Your task to perform on an android device: change timer sound Image 0: 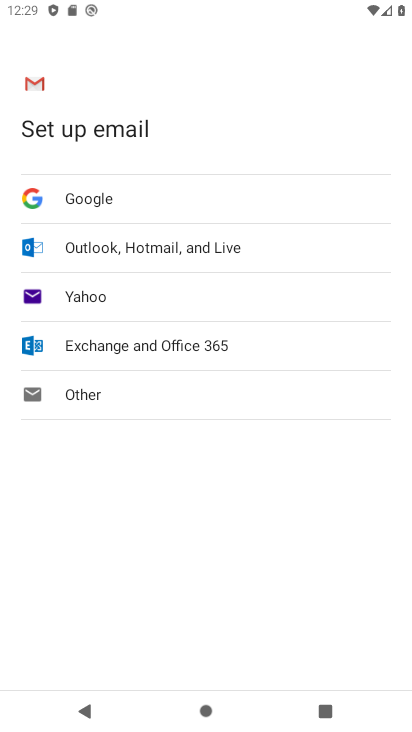
Step 0: press home button
Your task to perform on an android device: change timer sound Image 1: 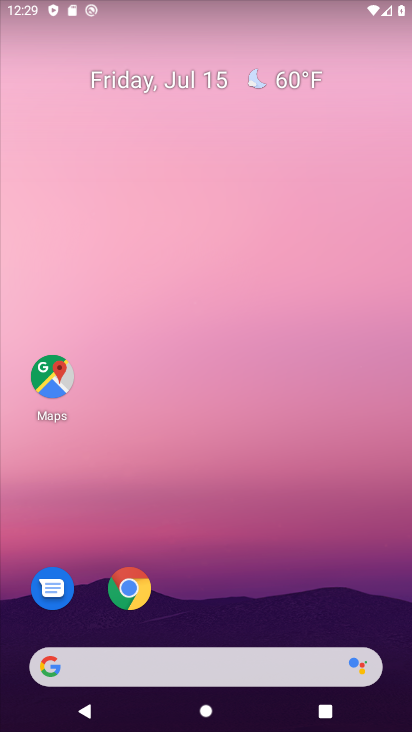
Step 1: drag from (213, 605) to (314, 43)
Your task to perform on an android device: change timer sound Image 2: 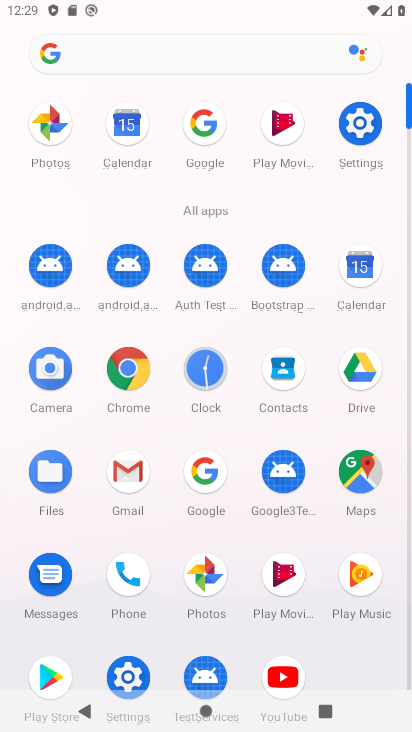
Step 2: click (208, 374)
Your task to perform on an android device: change timer sound Image 3: 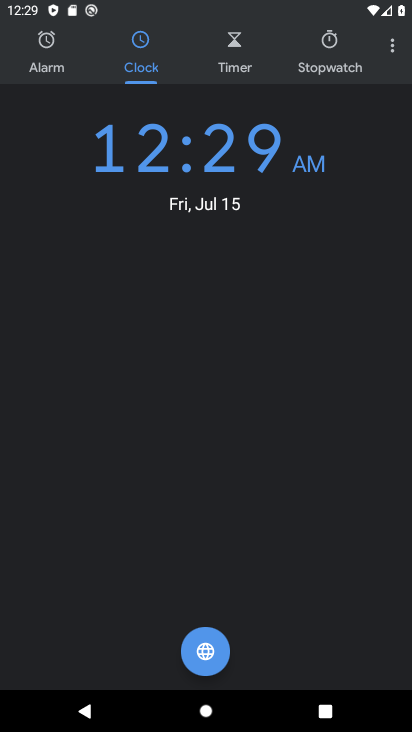
Step 3: click (399, 56)
Your task to perform on an android device: change timer sound Image 4: 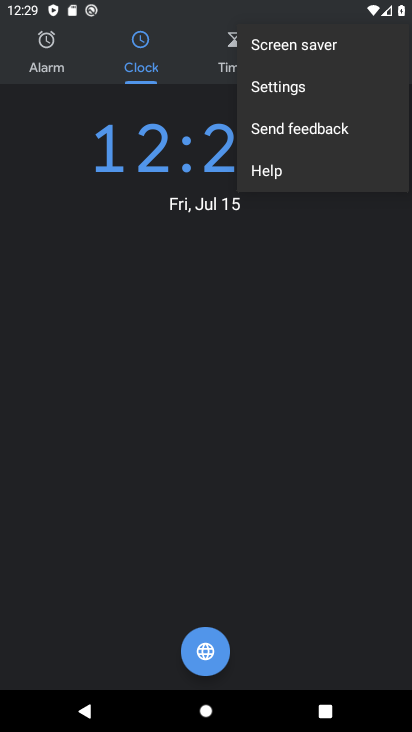
Step 4: click (296, 84)
Your task to perform on an android device: change timer sound Image 5: 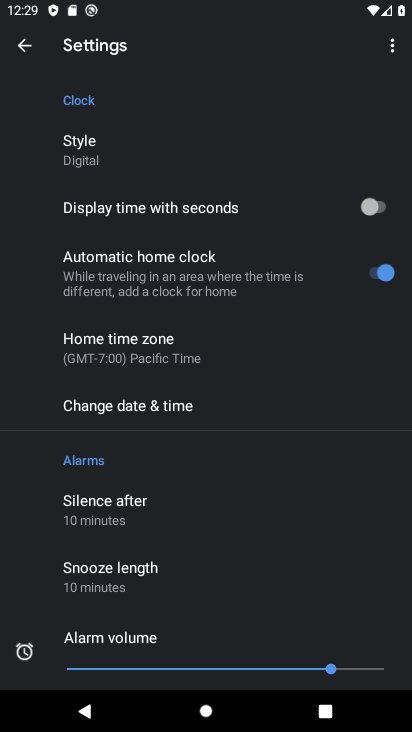
Step 5: drag from (160, 582) to (128, 298)
Your task to perform on an android device: change timer sound Image 6: 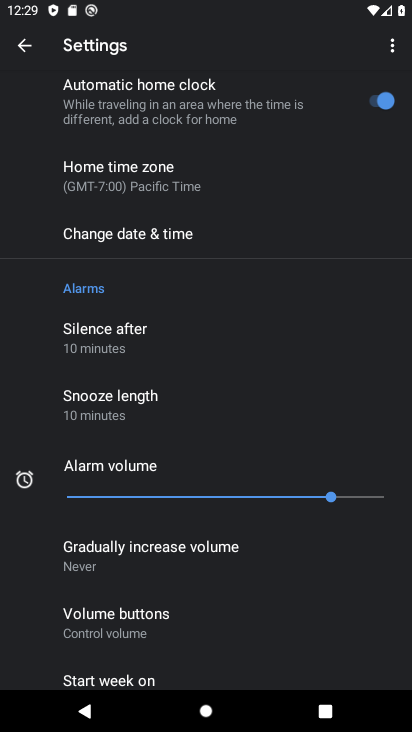
Step 6: drag from (116, 648) to (114, 137)
Your task to perform on an android device: change timer sound Image 7: 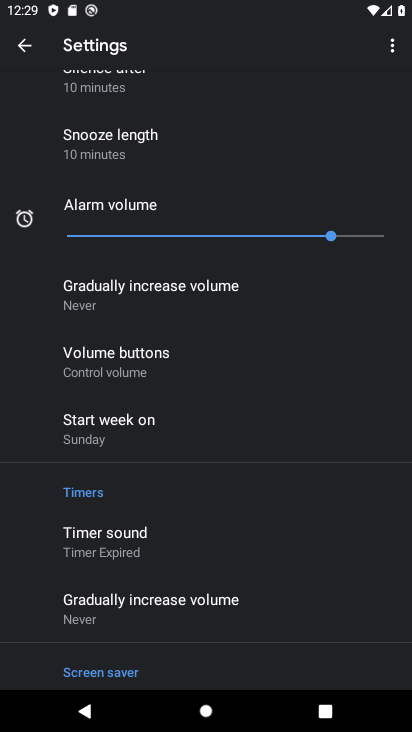
Step 7: click (132, 551)
Your task to perform on an android device: change timer sound Image 8: 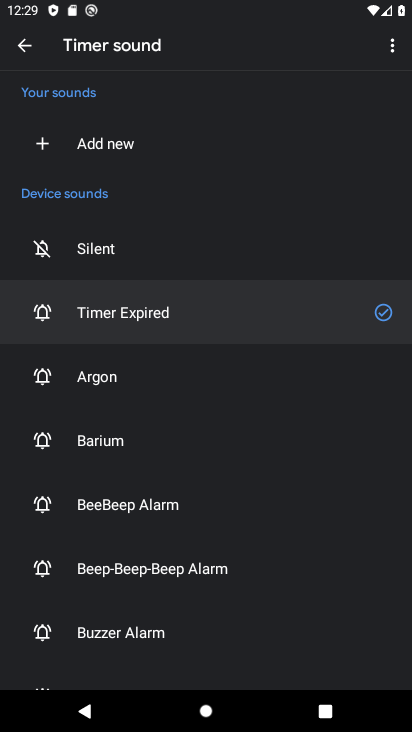
Step 8: click (130, 383)
Your task to perform on an android device: change timer sound Image 9: 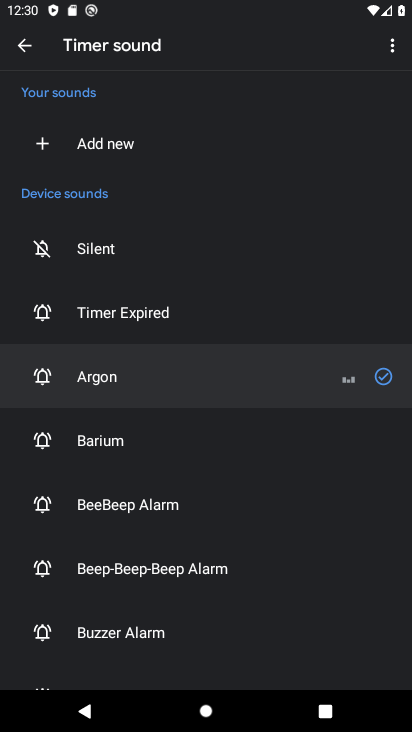
Step 9: task complete